Your task to perform on an android device: Go to Wikipedia Image 0: 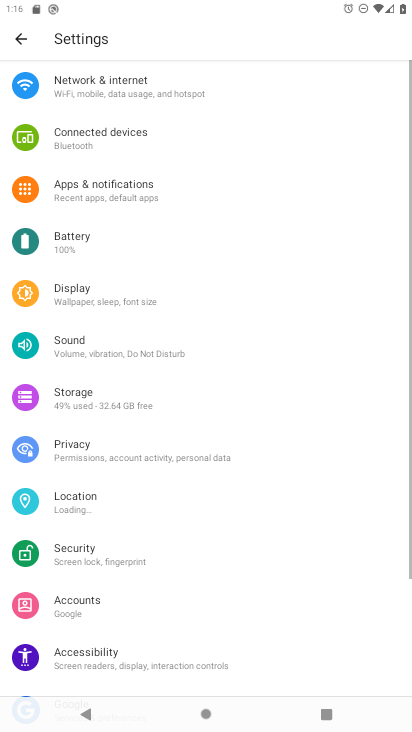
Step 0: press home button
Your task to perform on an android device: Go to Wikipedia Image 1: 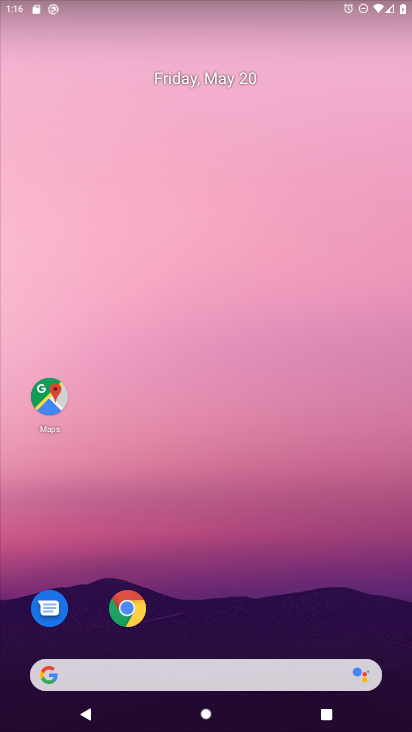
Step 1: click (130, 599)
Your task to perform on an android device: Go to Wikipedia Image 2: 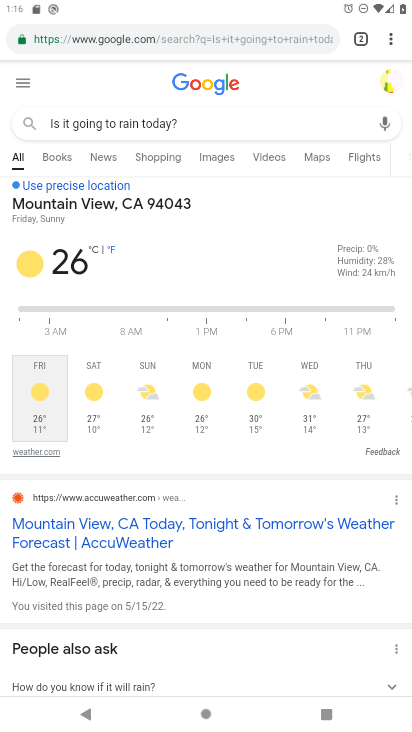
Step 2: click (200, 29)
Your task to perform on an android device: Go to Wikipedia Image 3: 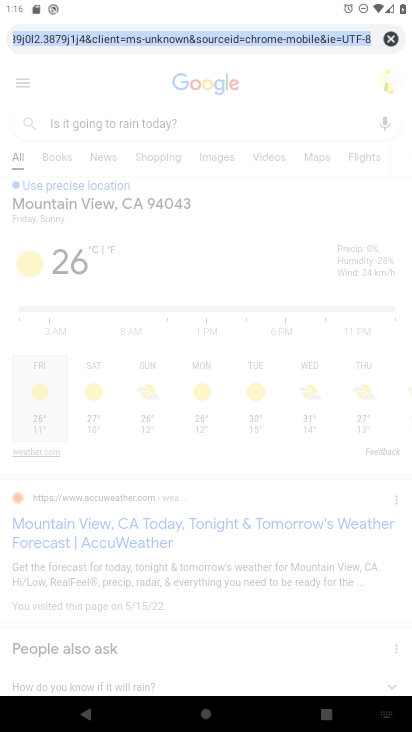
Step 3: click (387, 34)
Your task to perform on an android device: Go to Wikipedia Image 4: 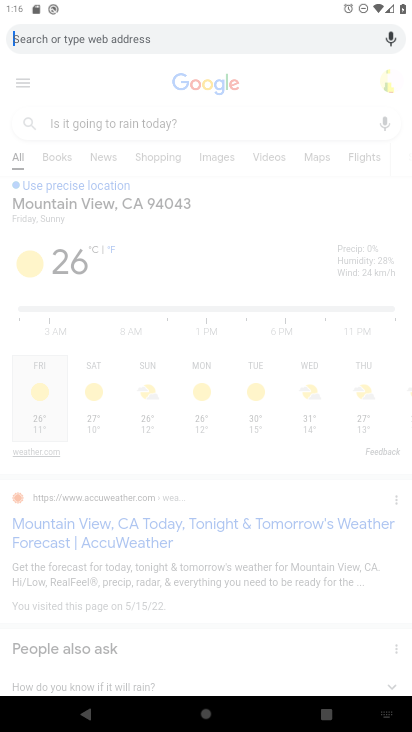
Step 4: type "Wikipedia"
Your task to perform on an android device: Go to Wikipedia Image 5: 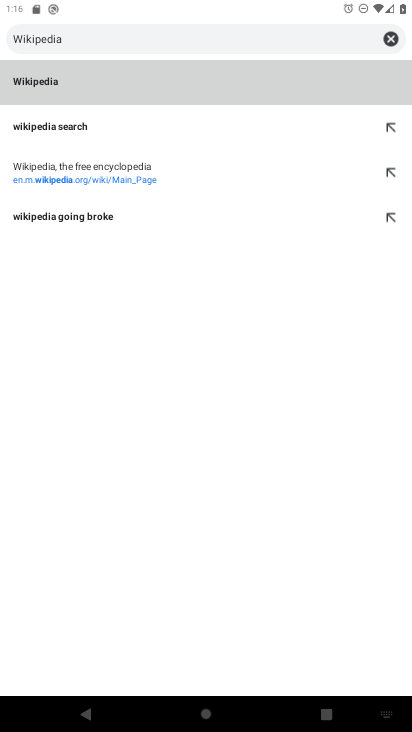
Step 5: click (359, 80)
Your task to perform on an android device: Go to Wikipedia Image 6: 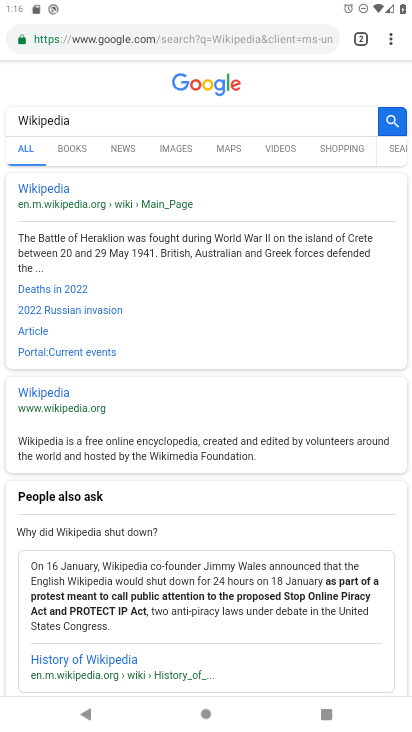
Step 6: click (53, 187)
Your task to perform on an android device: Go to Wikipedia Image 7: 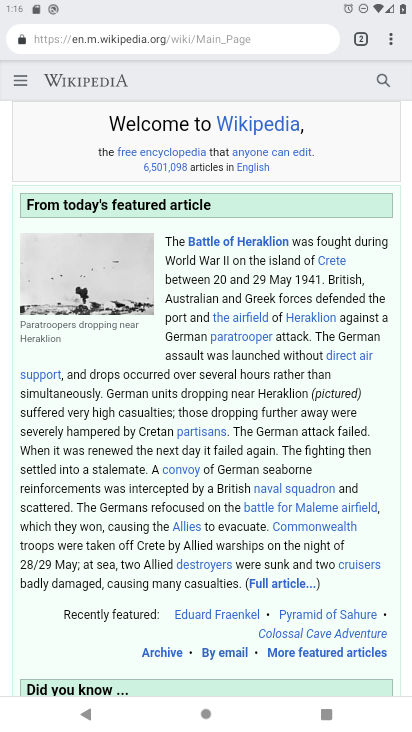
Step 7: task complete